Your task to perform on an android device: What's the weather today? Image 0: 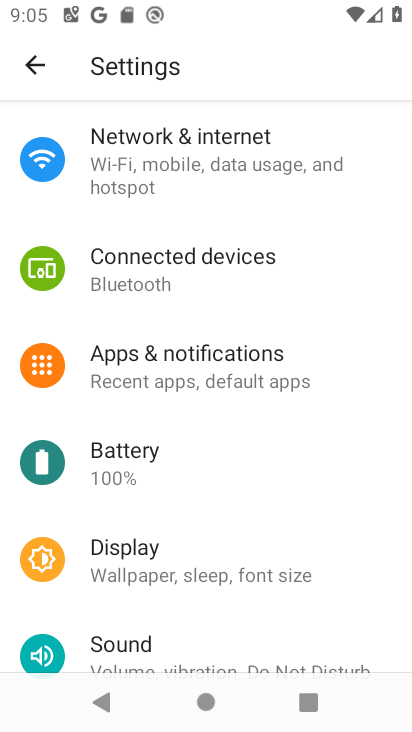
Step 0: press home button
Your task to perform on an android device: What's the weather today? Image 1: 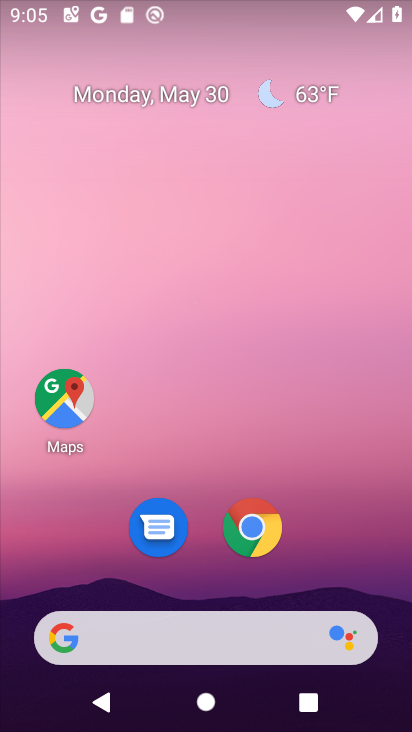
Step 1: click (251, 529)
Your task to perform on an android device: What's the weather today? Image 2: 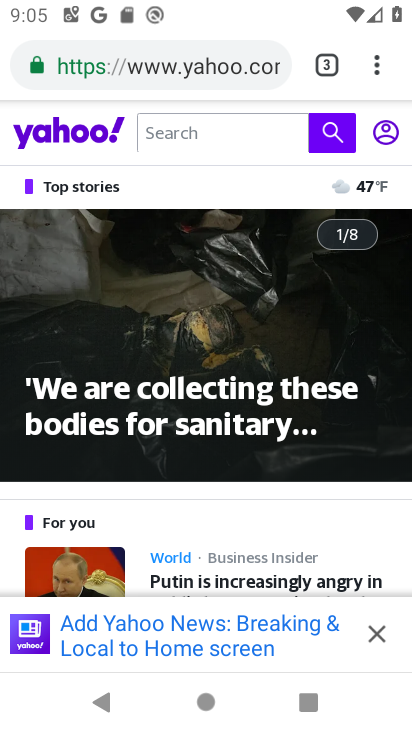
Step 2: click (371, 62)
Your task to perform on an android device: What's the weather today? Image 3: 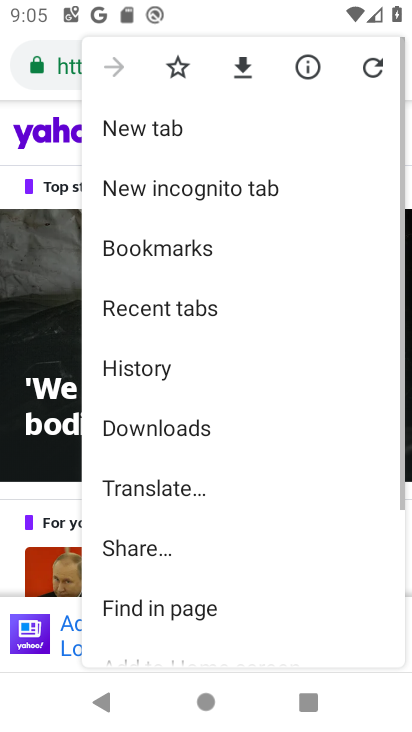
Step 3: click (175, 134)
Your task to perform on an android device: What's the weather today? Image 4: 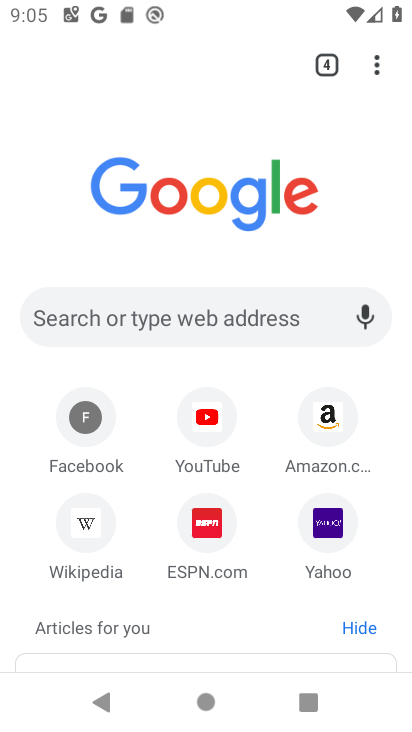
Step 4: click (241, 315)
Your task to perform on an android device: What's the weather today? Image 5: 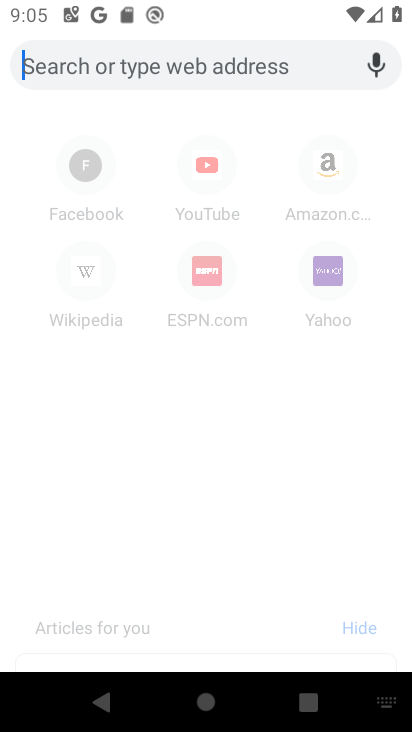
Step 5: type "What's the weather today?"
Your task to perform on an android device: What's the weather today? Image 6: 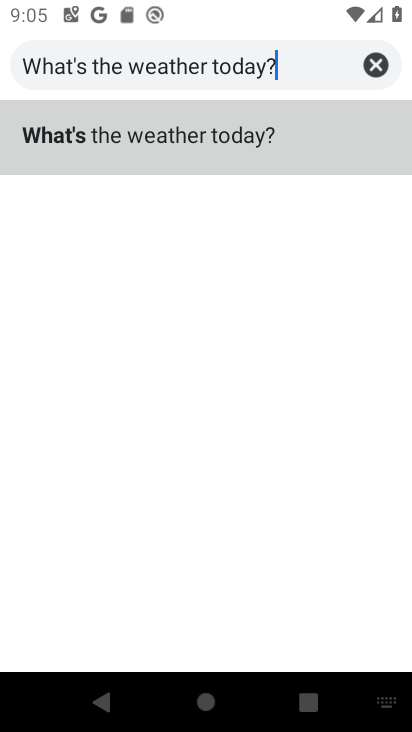
Step 6: click (137, 140)
Your task to perform on an android device: What's the weather today? Image 7: 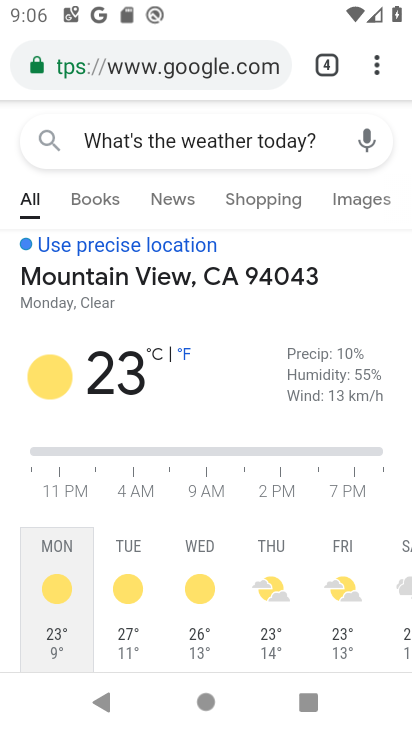
Step 7: task complete